Your task to perform on an android device: Check the news Image 0: 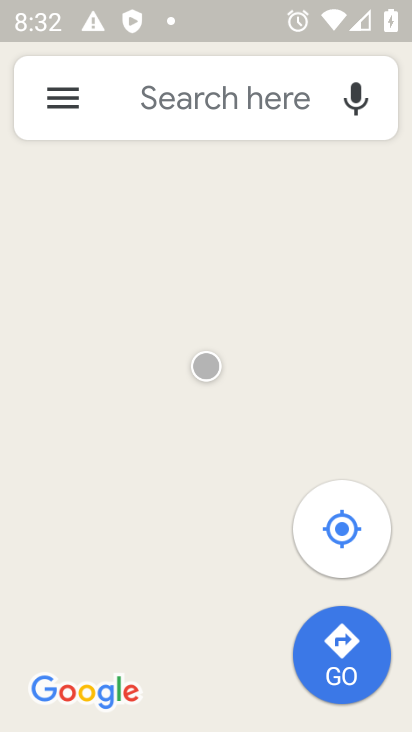
Step 0: press home button
Your task to perform on an android device: Check the news Image 1: 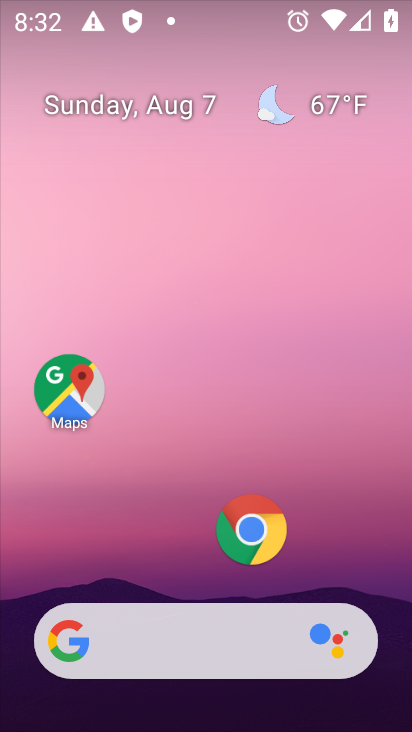
Step 1: click (197, 643)
Your task to perform on an android device: Check the news Image 2: 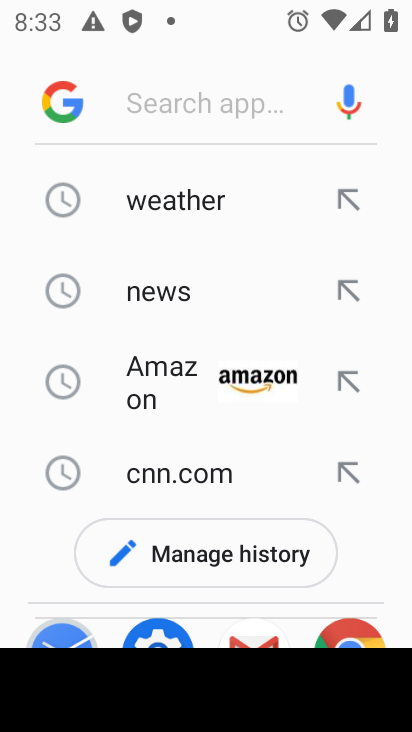
Step 2: type "news"
Your task to perform on an android device: Check the news Image 3: 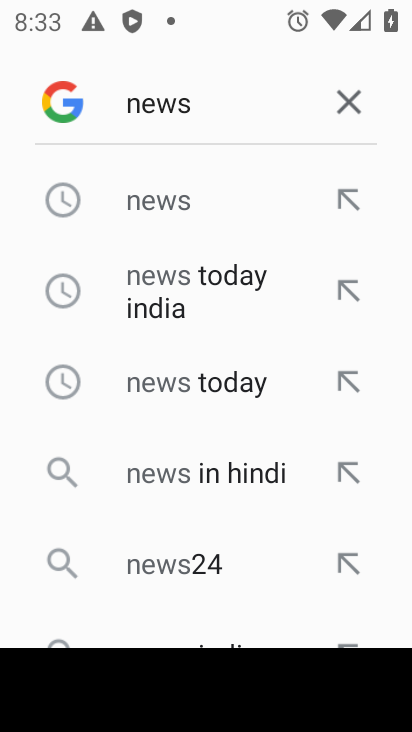
Step 3: click (166, 206)
Your task to perform on an android device: Check the news Image 4: 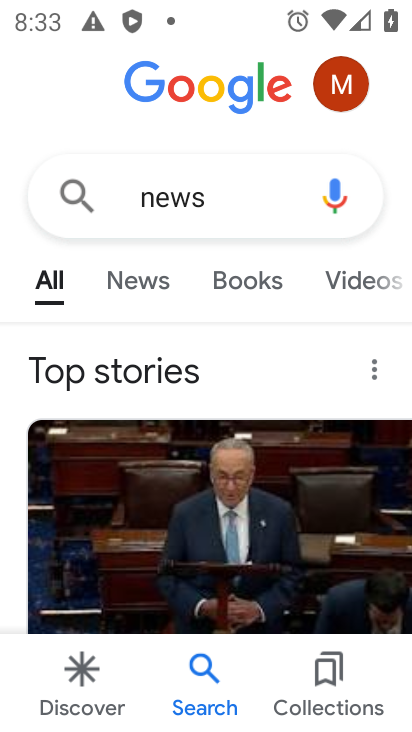
Step 4: task complete